Your task to perform on an android device: Open maps Image 0: 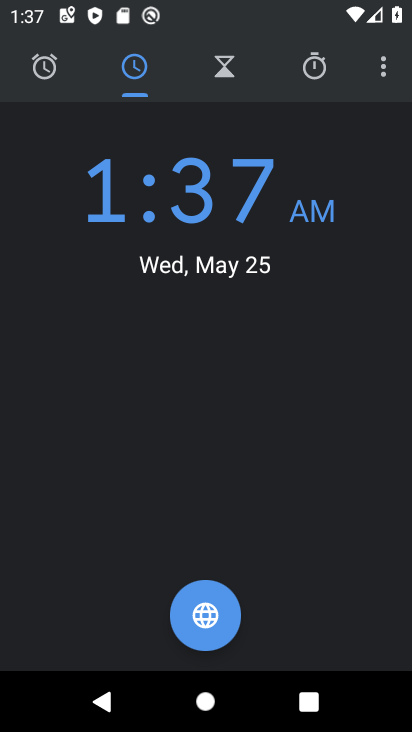
Step 0: press home button
Your task to perform on an android device: Open maps Image 1: 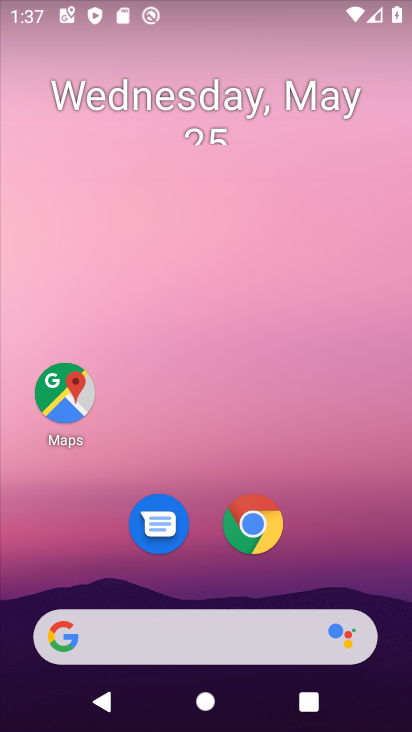
Step 1: click (61, 394)
Your task to perform on an android device: Open maps Image 2: 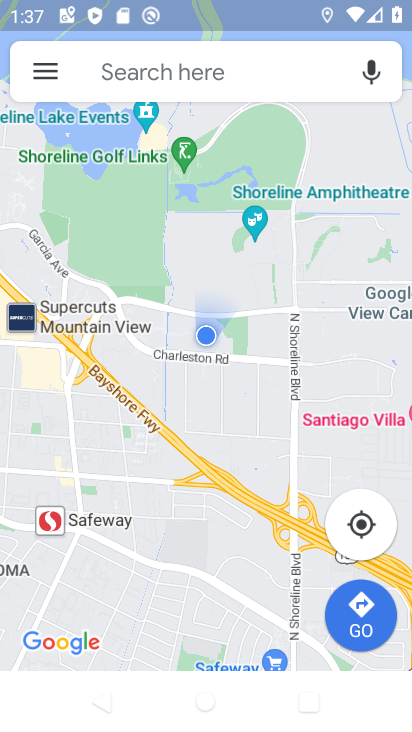
Step 2: task complete